Your task to perform on an android device: Open network settings Image 0: 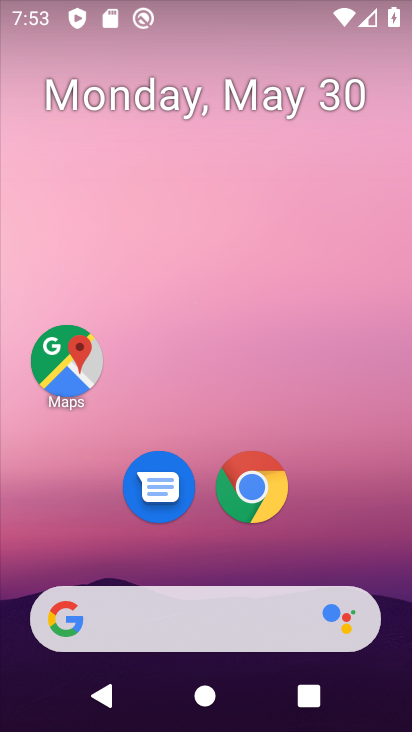
Step 0: drag from (314, 536) to (309, 182)
Your task to perform on an android device: Open network settings Image 1: 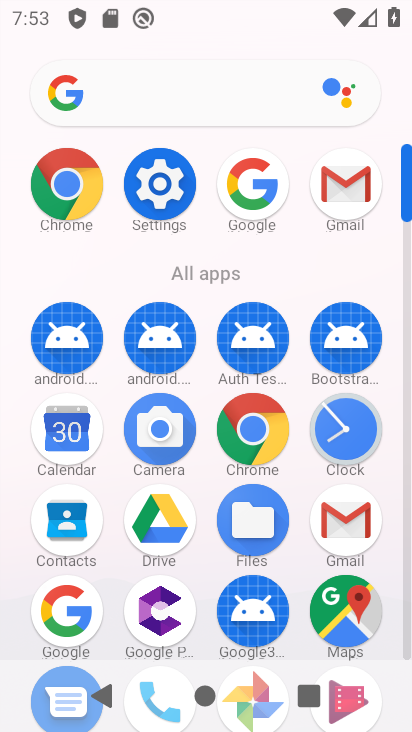
Step 1: click (161, 171)
Your task to perform on an android device: Open network settings Image 2: 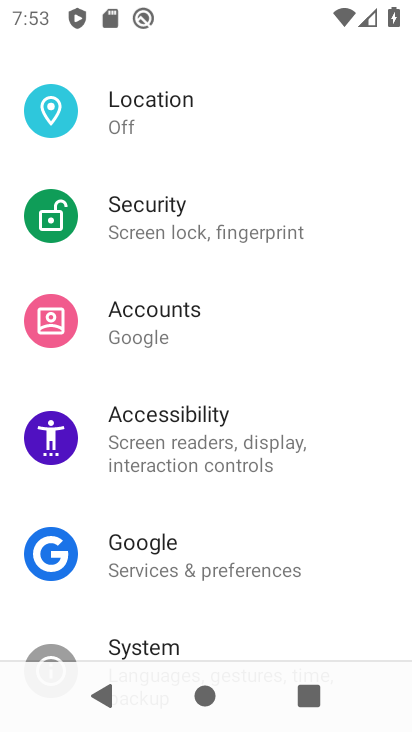
Step 2: drag from (166, 149) to (230, 581)
Your task to perform on an android device: Open network settings Image 3: 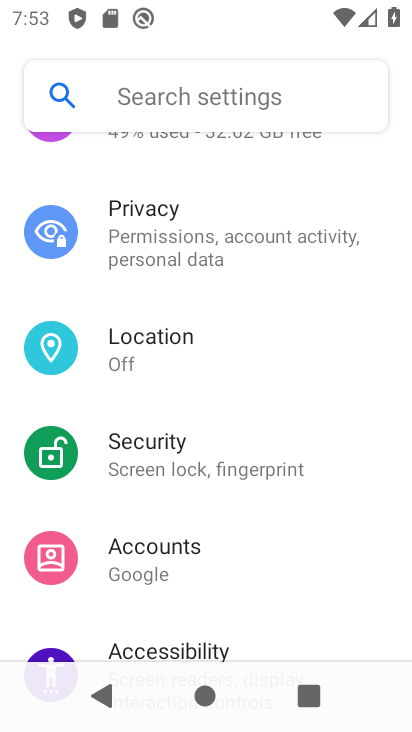
Step 3: drag from (177, 209) to (250, 617)
Your task to perform on an android device: Open network settings Image 4: 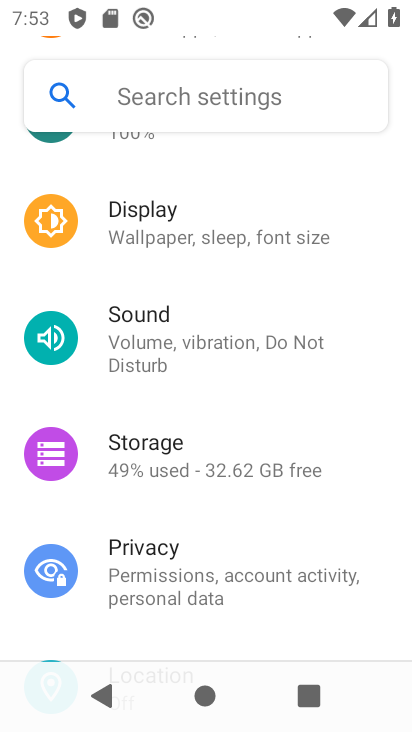
Step 4: drag from (250, 202) to (296, 617)
Your task to perform on an android device: Open network settings Image 5: 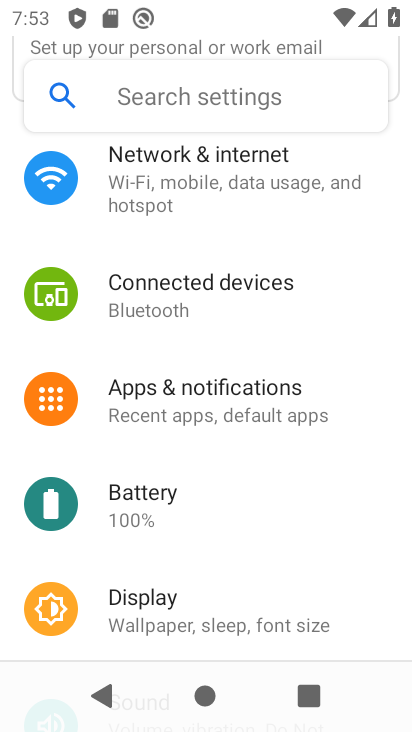
Step 5: drag from (198, 184) to (240, 540)
Your task to perform on an android device: Open network settings Image 6: 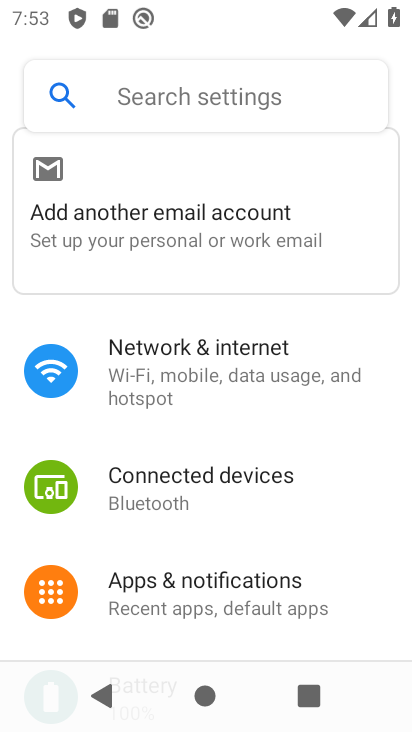
Step 6: click (214, 332)
Your task to perform on an android device: Open network settings Image 7: 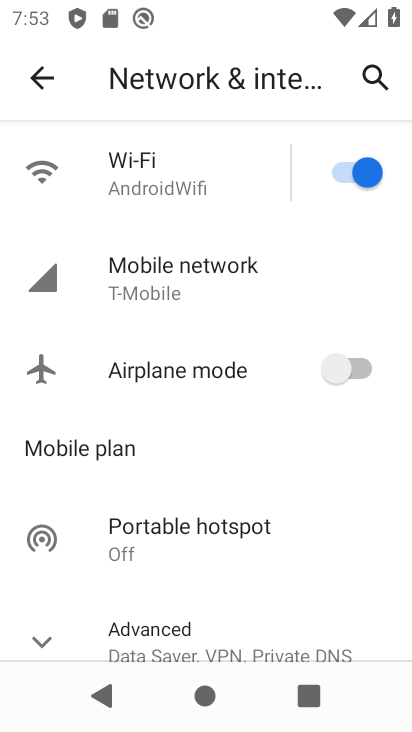
Step 7: task complete